Your task to perform on an android device: turn pop-ups off in chrome Image 0: 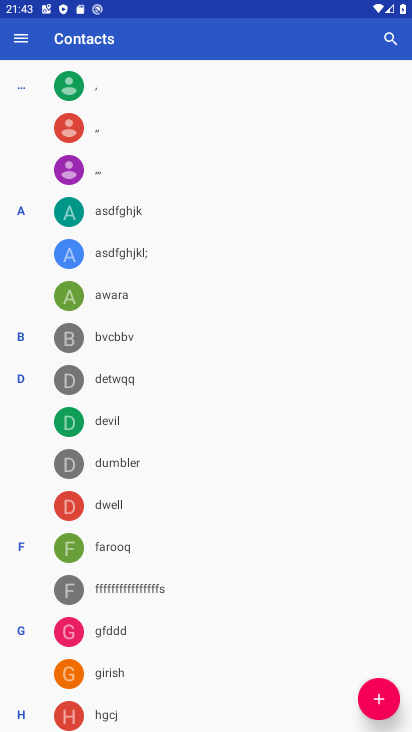
Step 0: press home button
Your task to perform on an android device: turn pop-ups off in chrome Image 1: 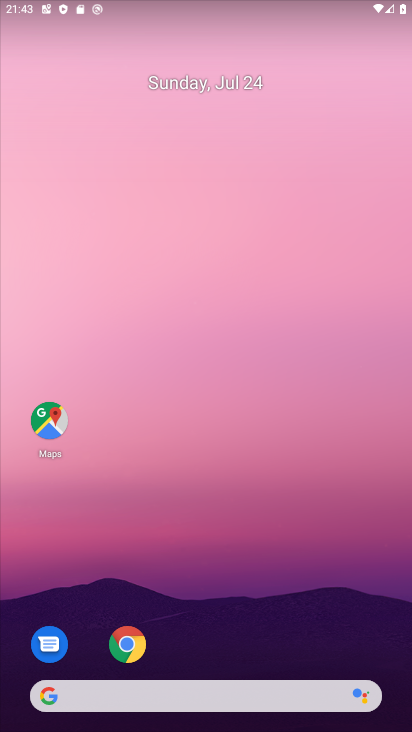
Step 1: click (128, 647)
Your task to perform on an android device: turn pop-ups off in chrome Image 2: 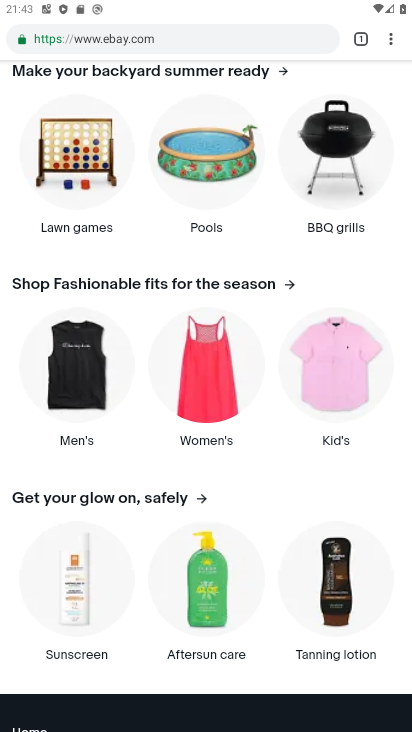
Step 2: click (390, 44)
Your task to perform on an android device: turn pop-ups off in chrome Image 3: 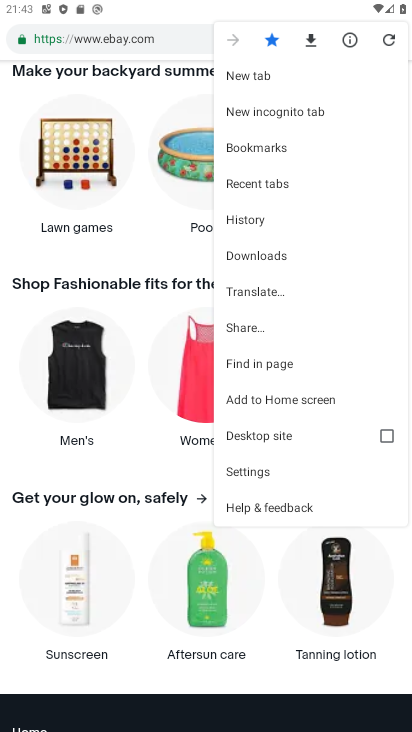
Step 3: click (252, 462)
Your task to perform on an android device: turn pop-ups off in chrome Image 4: 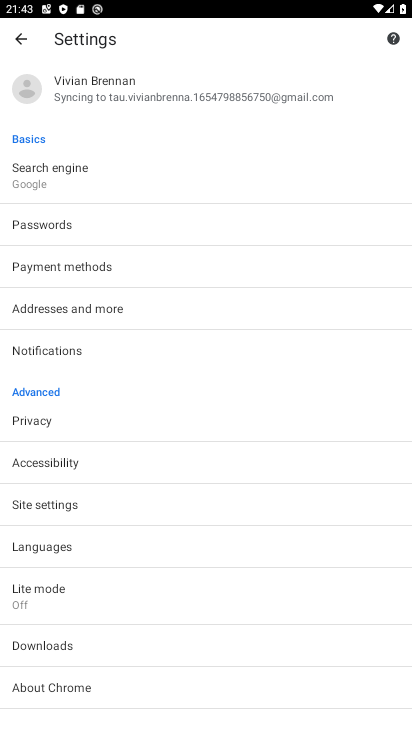
Step 4: click (48, 505)
Your task to perform on an android device: turn pop-ups off in chrome Image 5: 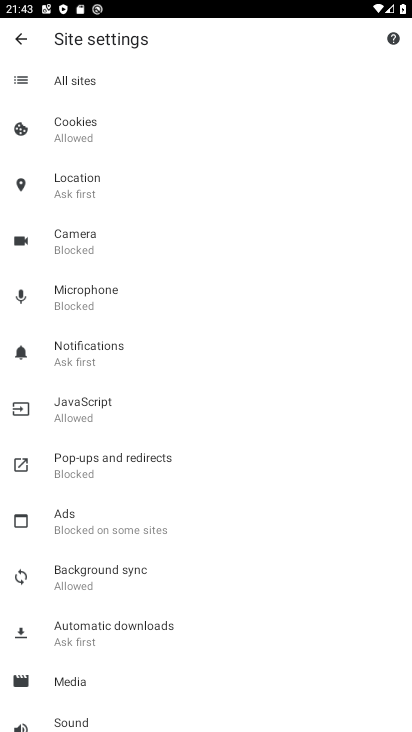
Step 5: click (97, 455)
Your task to perform on an android device: turn pop-ups off in chrome Image 6: 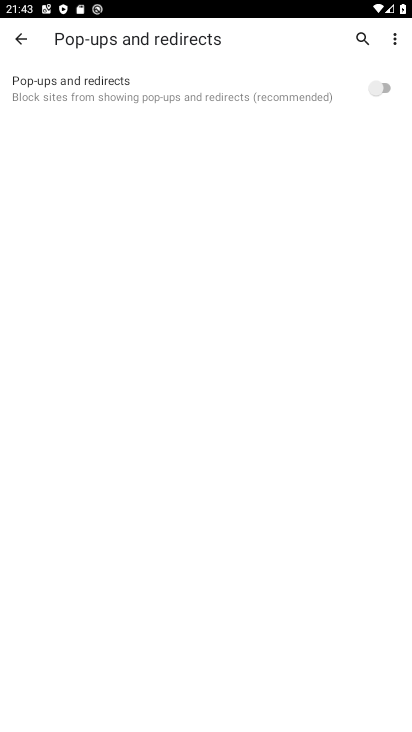
Step 6: task complete